Your task to perform on an android device: add a contact in the contacts app Image 0: 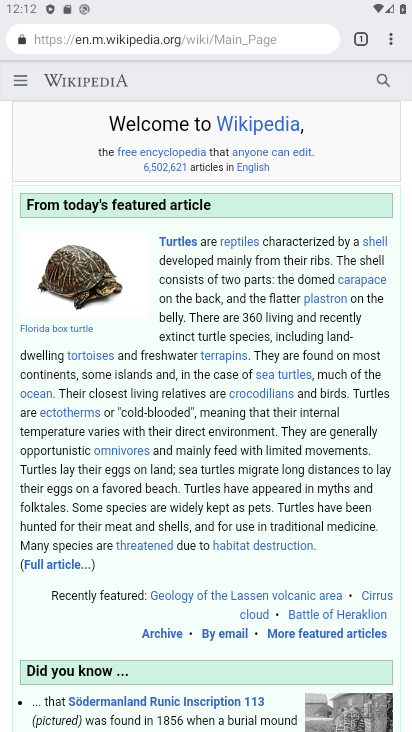
Step 0: press home button
Your task to perform on an android device: add a contact in the contacts app Image 1: 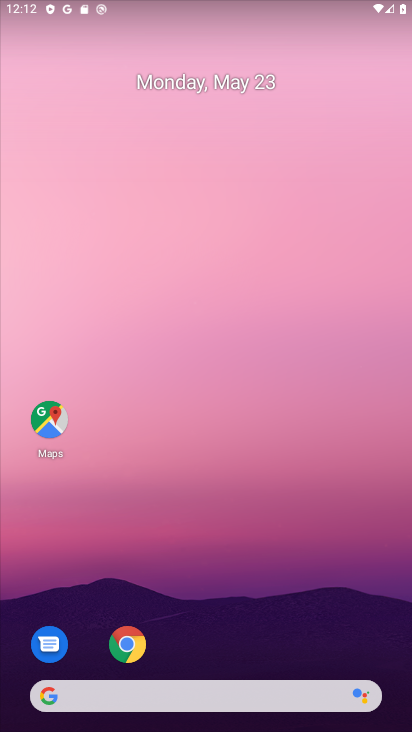
Step 1: drag from (284, 619) to (274, 57)
Your task to perform on an android device: add a contact in the contacts app Image 2: 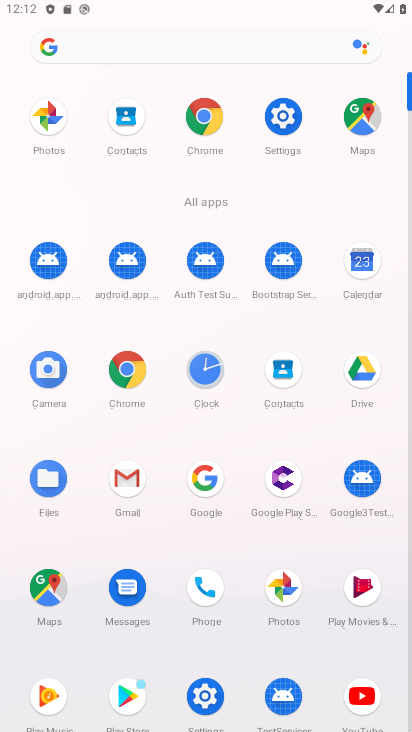
Step 2: click (288, 368)
Your task to perform on an android device: add a contact in the contacts app Image 3: 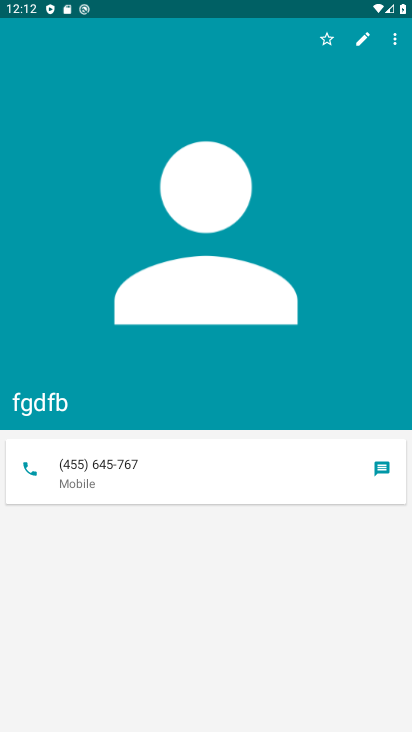
Step 3: task complete